Your task to perform on an android device: Go to Android settings Image 0: 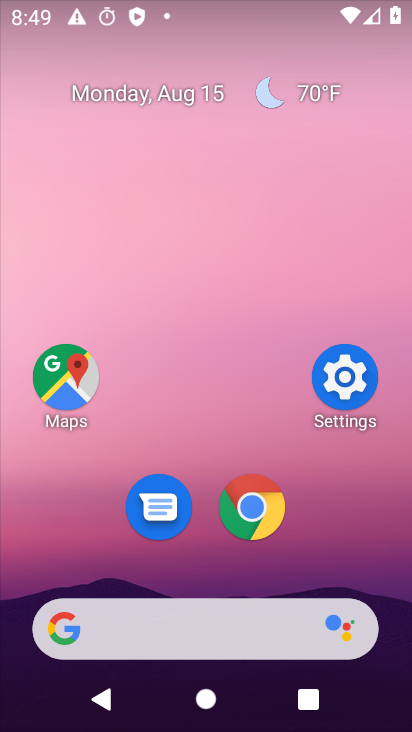
Step 0: click (339, 381)
Your task to perform on an android device: Go to Android settings Image 1: 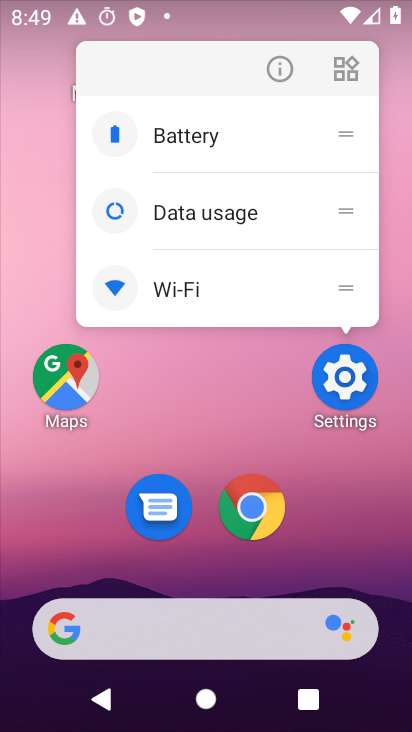
Step 1: click (352, 376)
Your task to perform on an android device: Go to Android settings Image 2: 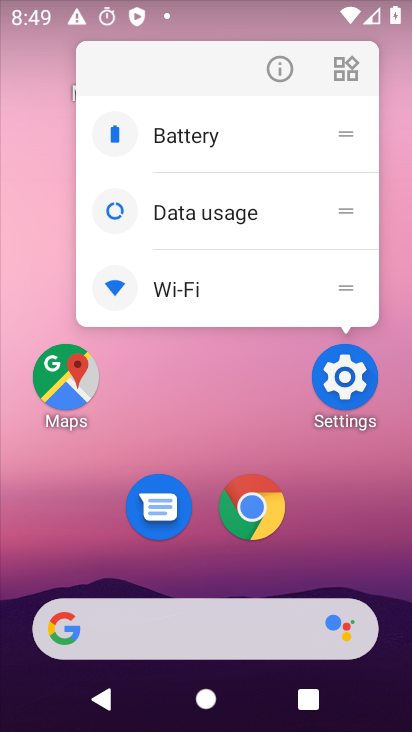
Step 2: click (344, 374)
Your task to perform on an android device: Go to Android settings Image 3: 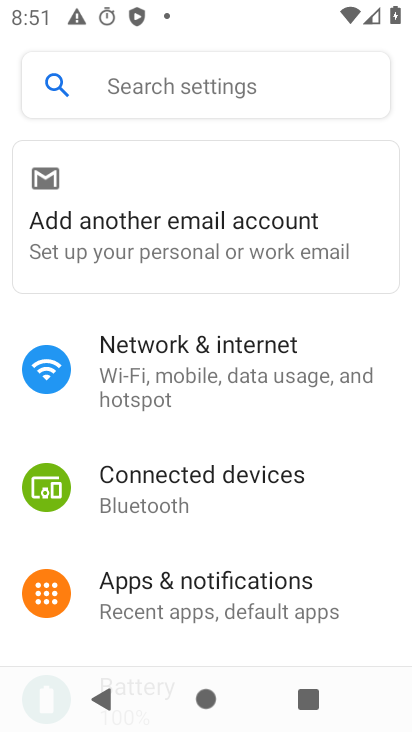
Step 3: task complete